Your task to perform on an android device: Search for Italian restaurants on Maps Image 0: 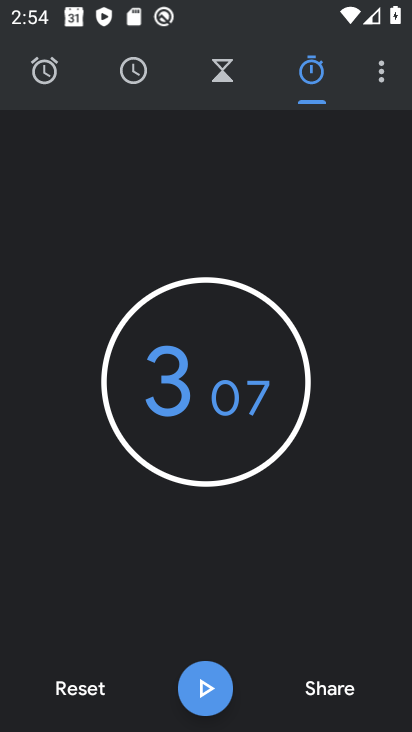
Step 0: press home button
Your task to perform on an android device: Search for Italian restaurants on Maps Image 1: 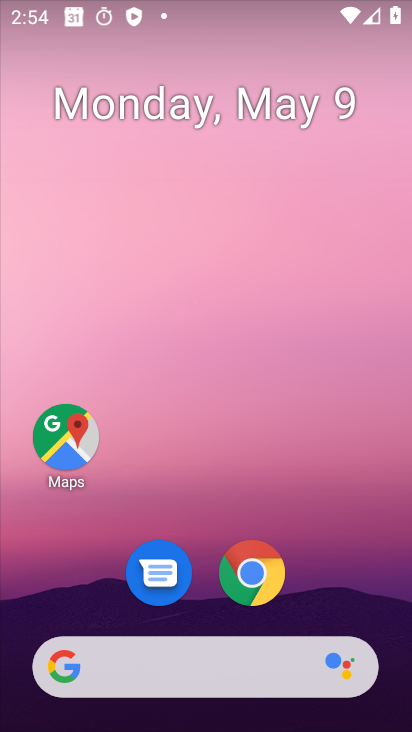
Step 1: drag from (286, 623) to (239, 66)
Your task to perform on an android device: Search for Italian restaurants on Maps Image 2: 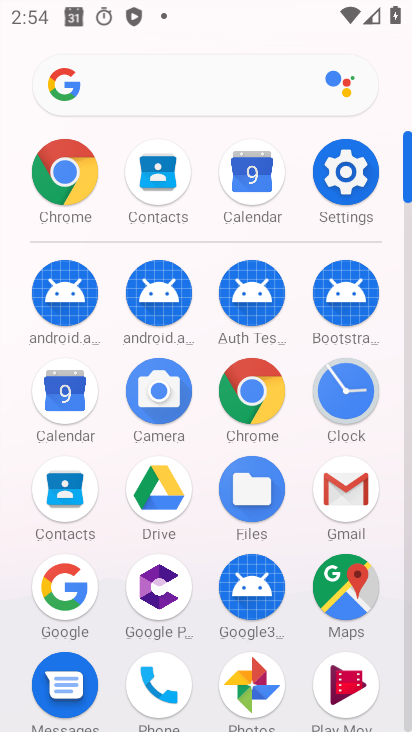
Step 2: click (366, 598)
Your task to perform on an android device: Search for Italian restaurants on Maps Image 3: 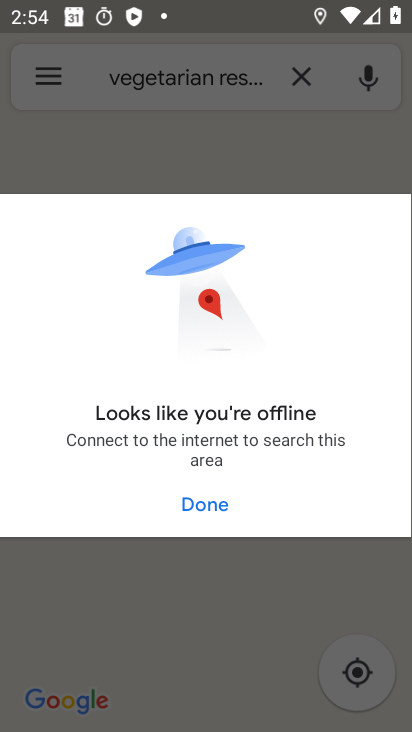
Step 3: task complete